Your task to perform on an android device: What's the weather? Image 0: 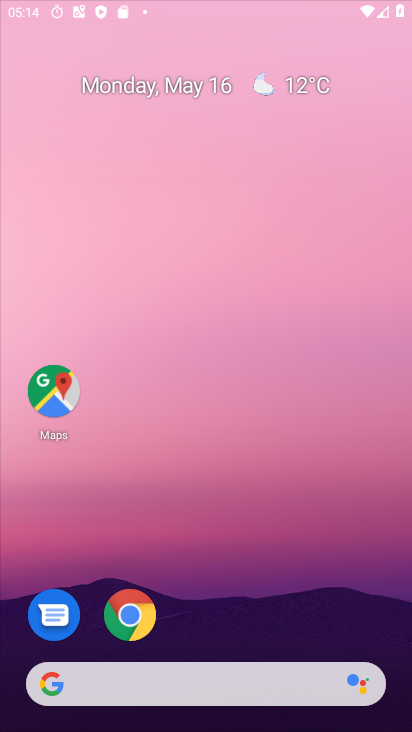
Step 0: click (87, 266)
Your task to perform on an android device: What's the weather? Image 1: 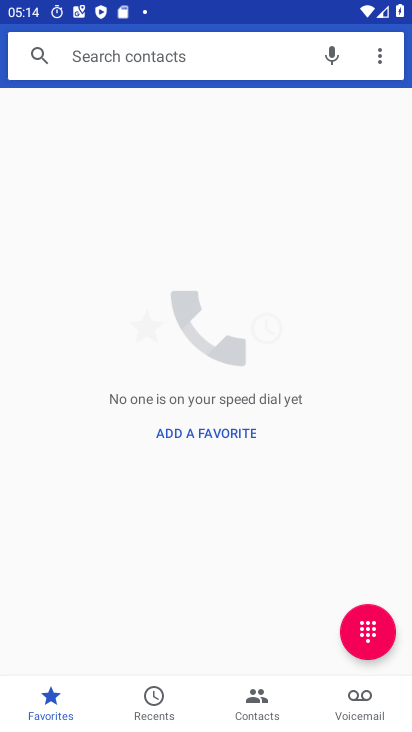
Step 1: click (363, 709)
Your task to perform on an android device: What's the weather? Image 2: 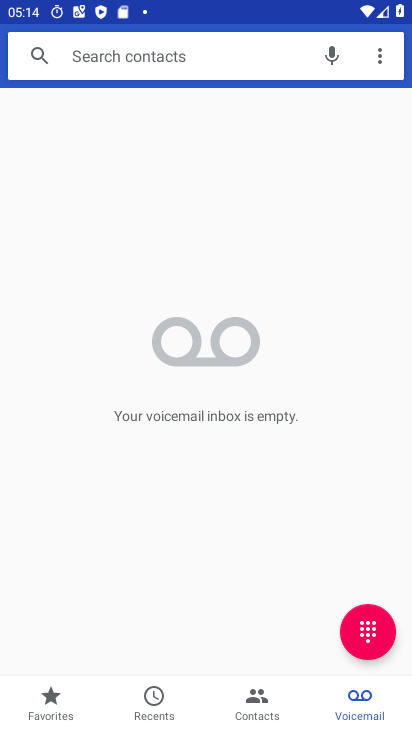
Step 2: press back button
Your task to perform on an android device: What's the weather? Image 3: 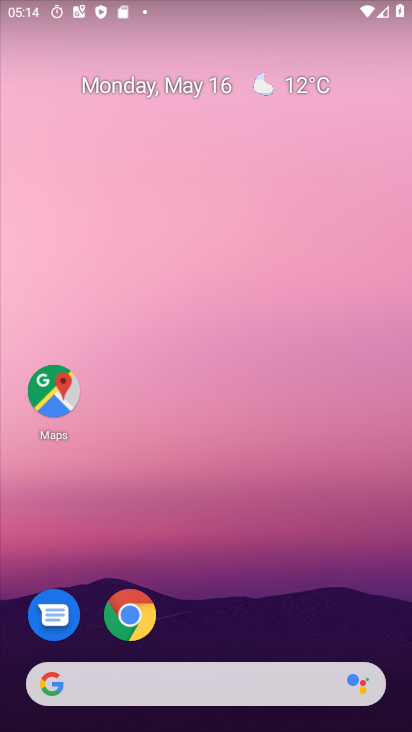
Step 3: drag from (3, 203) to (410, 596)
Your task to perform on an android device: What's the weather? Image 4: 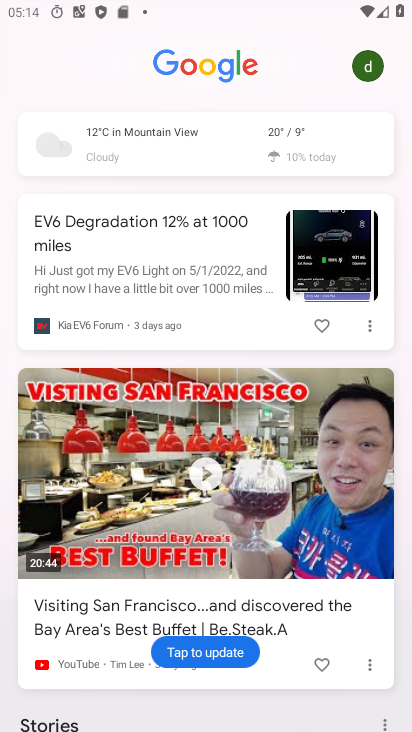
Step 4: click (188, 137)
Your task to perform on an android device: What's the weather? Image 5: 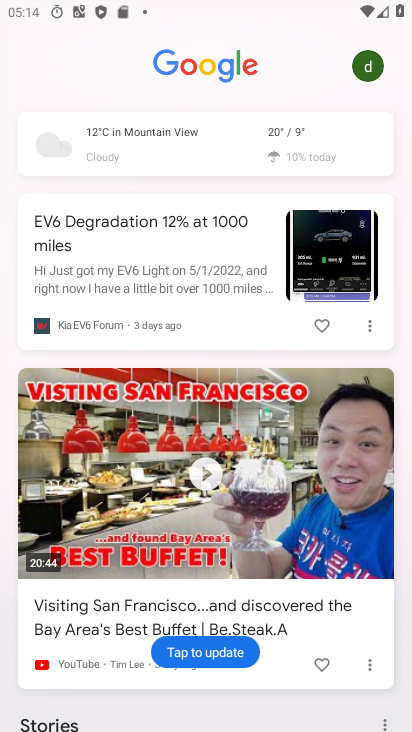
Step 5: click (187, 136)
Your task to perform on an android device: What's the weather? Image 6: 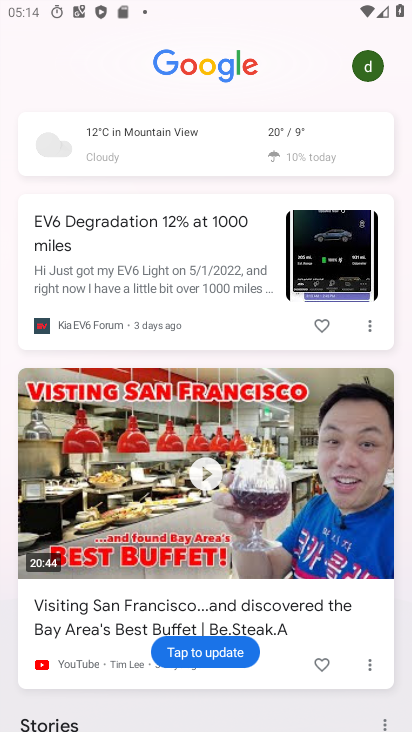
Step 6: click (187, 136)
Your task to perform on an android device: What's the weather? Image 7: 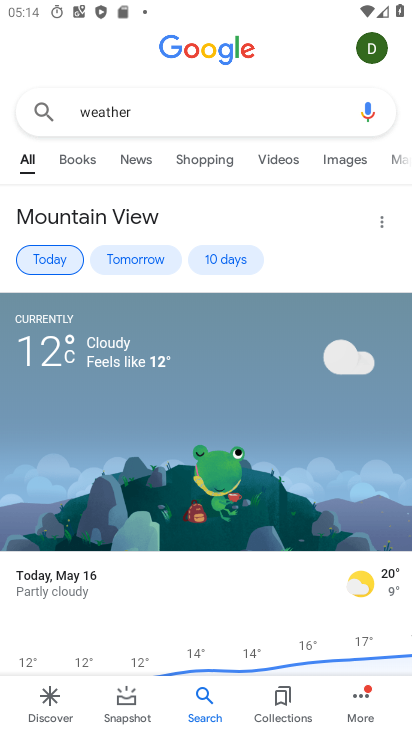
Step 7: click (124, 257)
Your task to perform on an android device: What's the weather? Image 8: 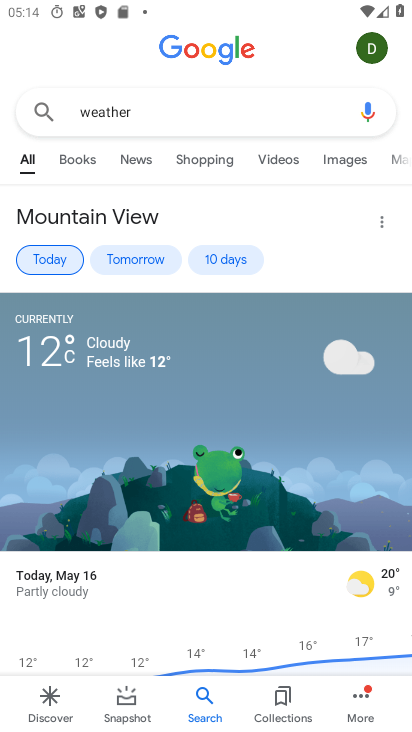
Step 8: click (125, 257)
Your task to perform on an android device: What's the weather? Image 9: 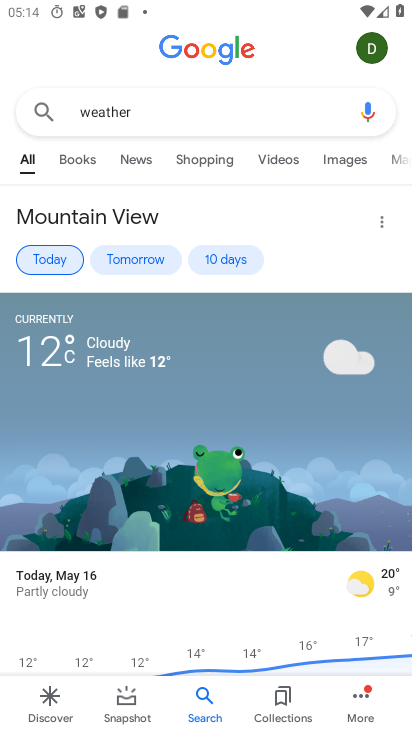
Step 9: click (125, 257)
Your task to perform on an android device: What's the weather? Image 10: 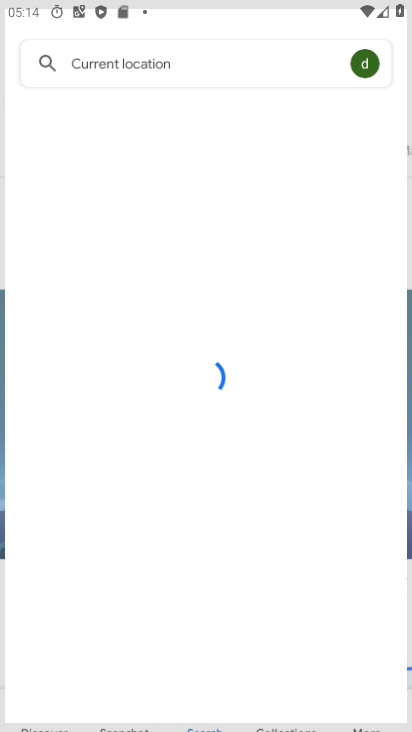
Step 10: click (125, 257)
Your task to perform on an android device: What's the weather? Image 11: 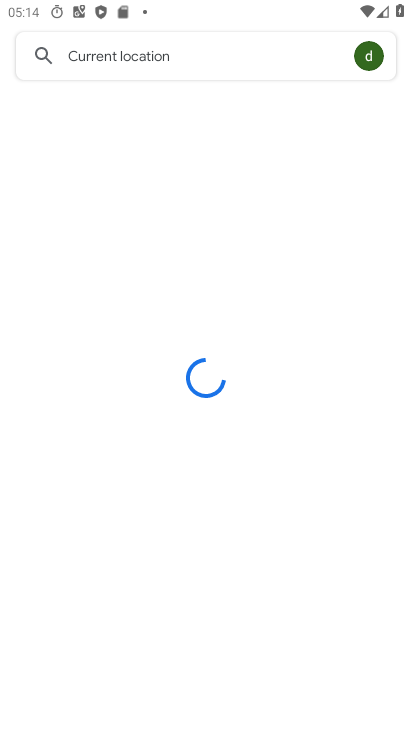
Step 11: click (125, 257)
Your task to perform on an android device: What's the weather? Image 12: 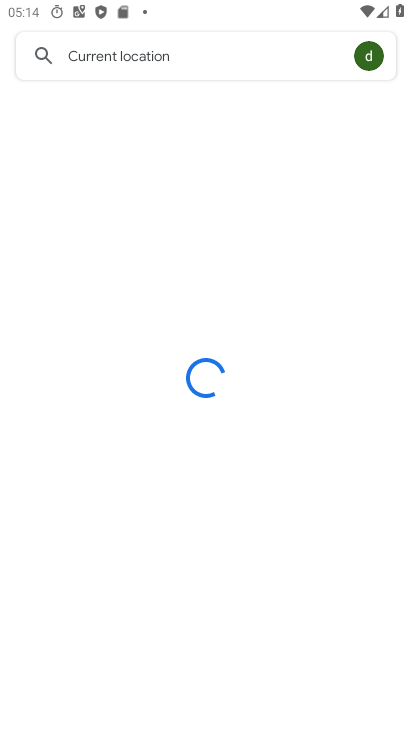
Step 12: click (125, 257)
Your task to perform on an android device: What's the weather? Image 13: 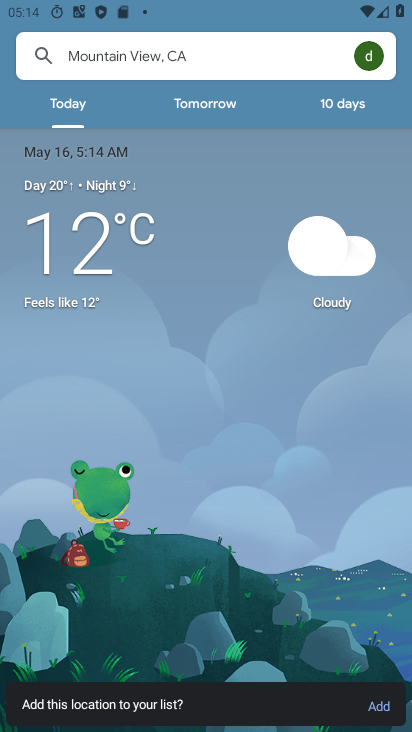
Step 13: task complete